Your task to perform on an android device: Open Chrome and go to settings Image 0: 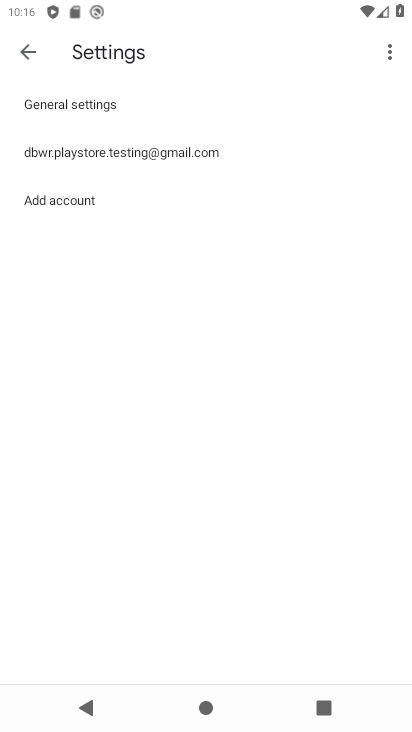
Step 0: press home button
Your task to perform on an android device: Open Chrome and go to settings Image 1: 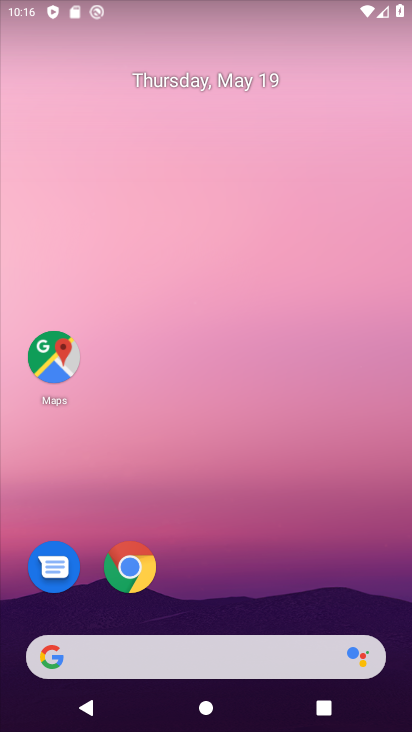
Step 1: click (136, 569)
Your task to perform on an android device: Open Chrome and go to settings Image 2: 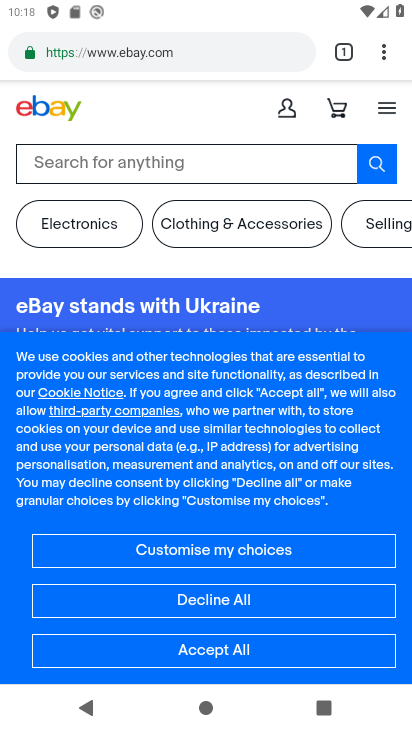
Step 2: click (389, 57)
Your task to perform on an android device: Open Chrome and go to settings Image 3: 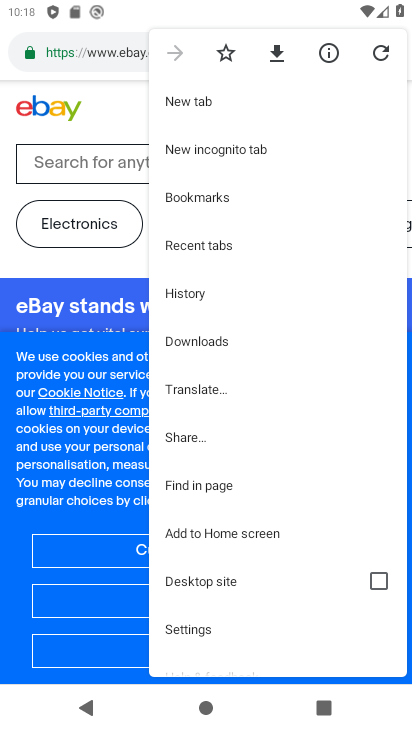
Step 3: click (193, 627)
Your task to perform on an android device: Open Chrome and go to settings Image 4: 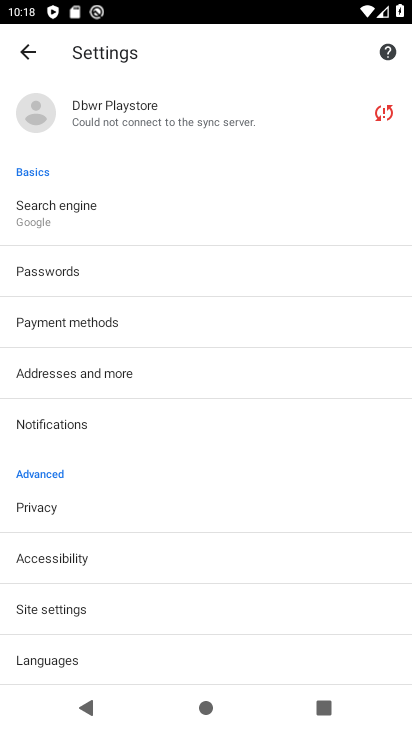
Step 4: task complete